Your task to perform on an android device: Search for sushi restaurants on Maps Image 0: 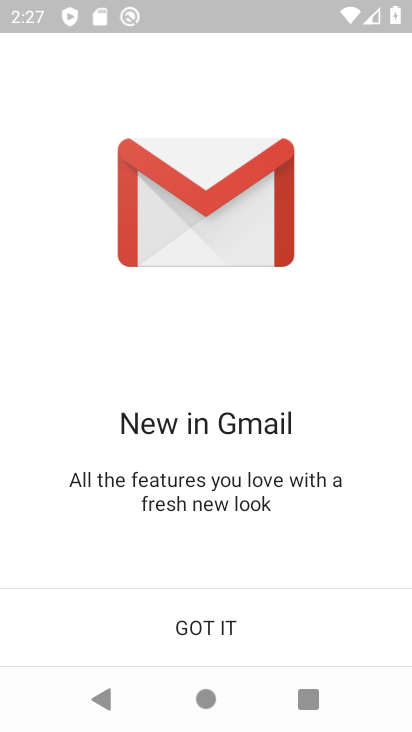
Step 0: press home button
Your task to perform on an android device: Search for sushi restaurants on Maps Image 1: 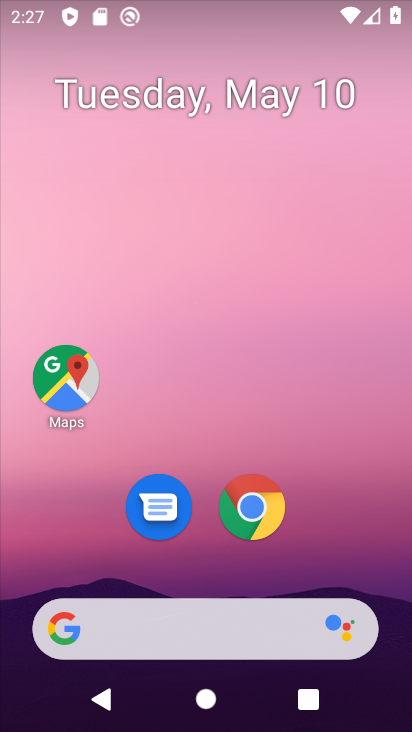
Step 1: drag from (237, 698) to (203, 95)
Your task to perform on an android device: Search for sushi restaurants on Maps Image 2: 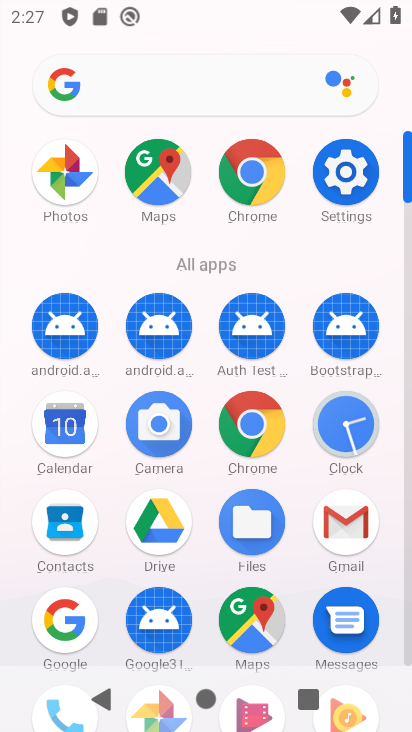
Step 2: click (253, 615)
Your task to perform on an android device: Search for sushi restaurants on Maps Image 3: 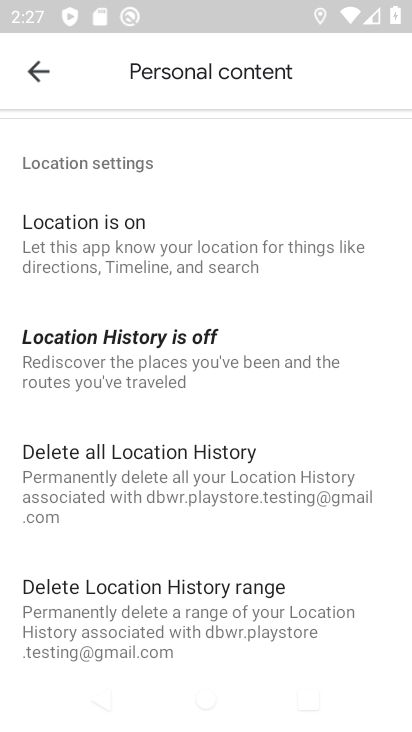
Step 3: click (44, 74)
Your task to perform on an android device: Search for sushi restaurants on Maps Image 4: 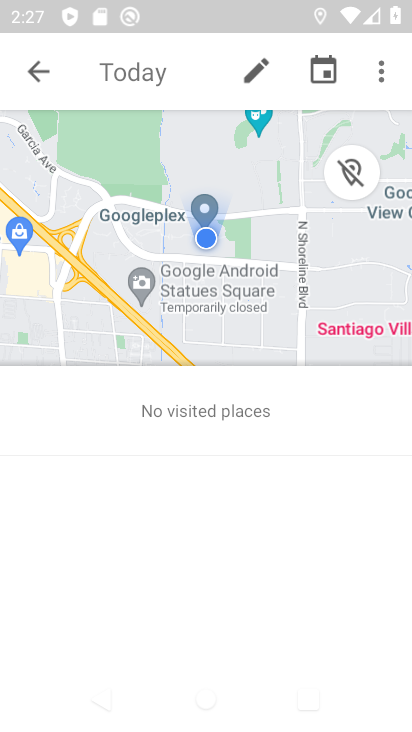
Step 4: click (31, 69)
Your task to perform on an android device: Search for sushi restaurants on Maps Image 5: 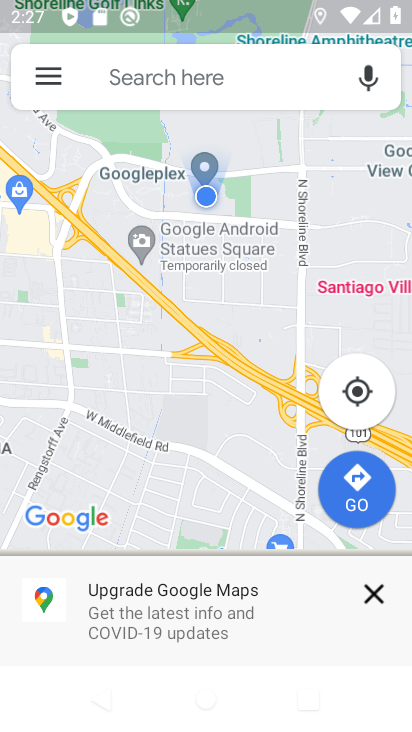
Step 5: click (213, 77)
Your task to perform on an android device: Search for sushi restaurants on Maps Image 6: 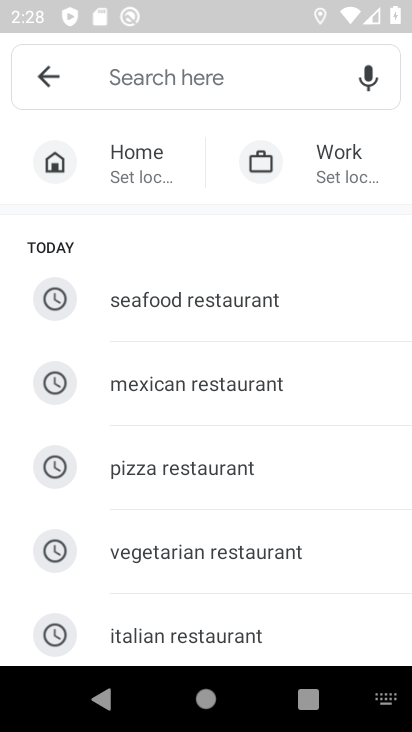
Step 6: type "sushi restaurants"
Your task to perform on an android device: Search for sushi restaurants on Maps Image 7: 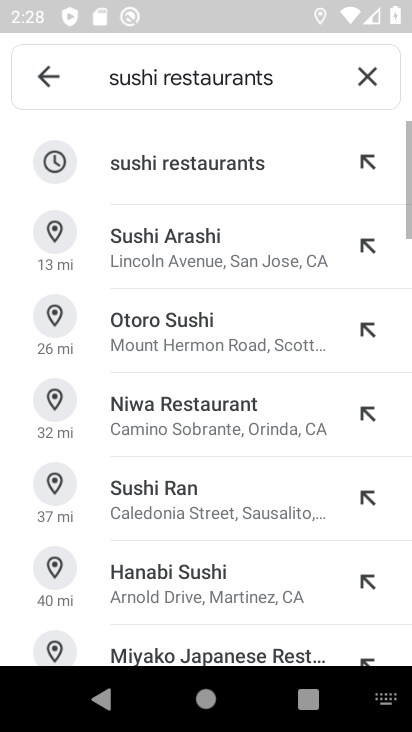
Step 7: click (200, 156)
Your task to perform on an android device: Search for sushi restaurants on Maps Image 8: 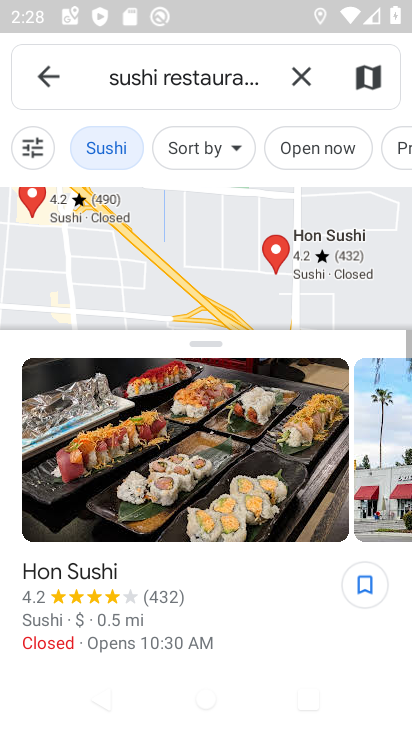
Step 8: task complete